Your task to perform on an android device: turn pop-ups off in chrome Image 0: 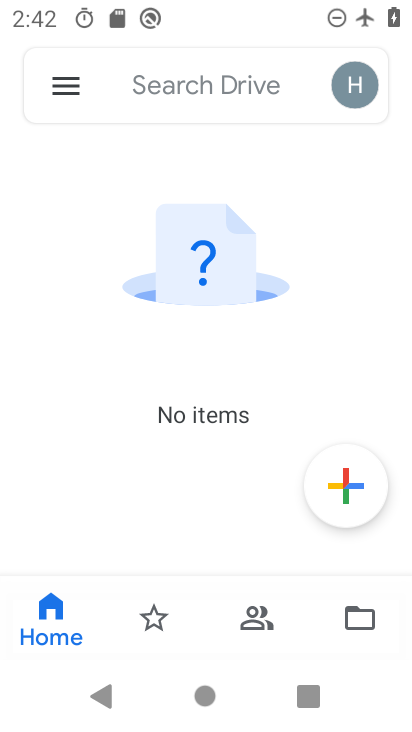
Step 0: press home button
Your task to perform on an android device: turn pop-ups off in chrome Image 1: 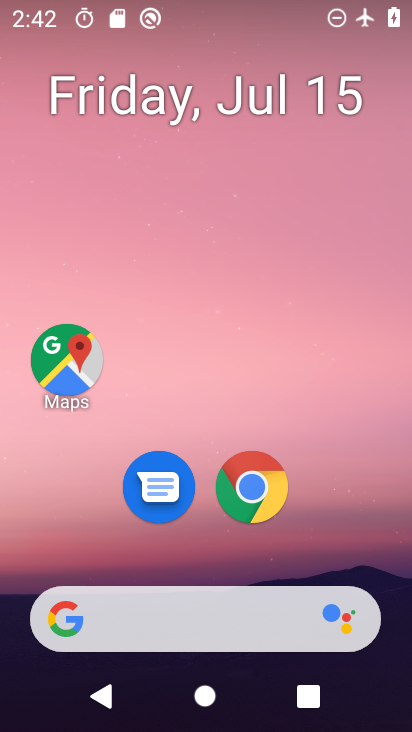
Step 1: drag from (172, 646) to (257, 199)
Your task to perform on an android device: turn pop-ups off in chrome Image 2: 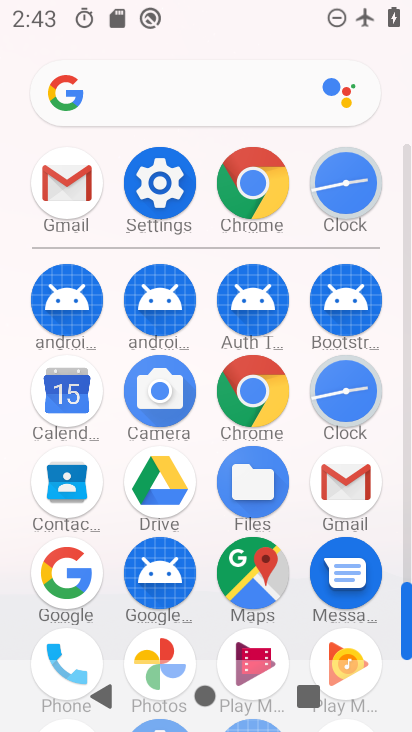
Step 2: click (273, 230)
Your task to perform on an android device: turn pop-ups off in chrome Image 3: 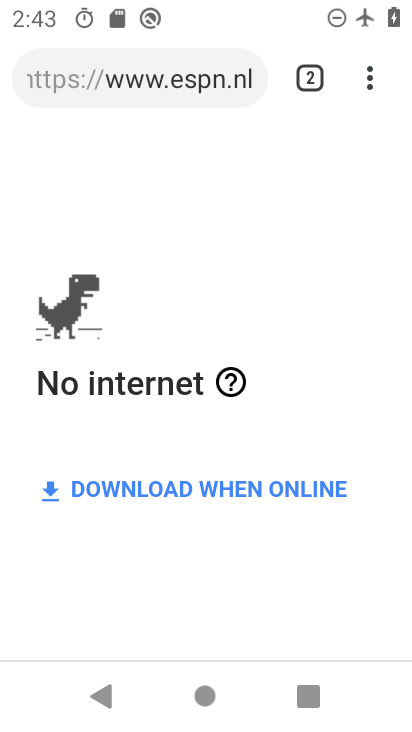
Step 3: click (366, 93)
Your task to perform on an android device: turn pop-ups off in chrome Image 4: 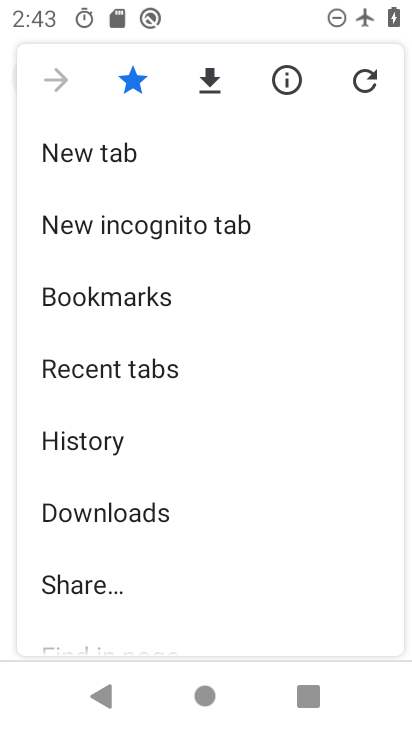
Step 4: drag from (224, 535) to (240, 213)
Your task to perform on an android device: turn pop-ups off in chrome Image 5: 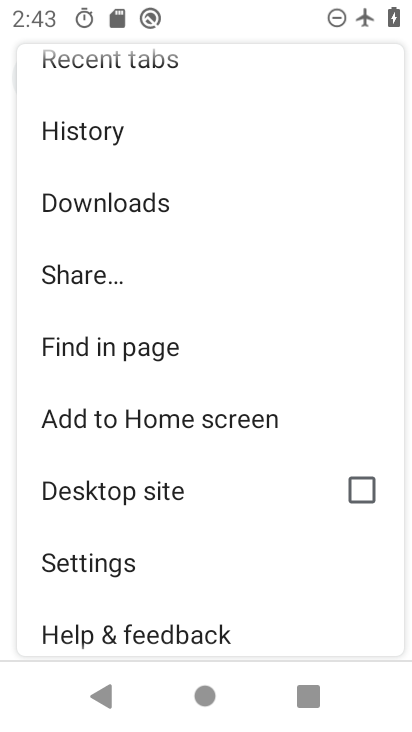
Step 5: click (90, 566)
Your task to perform on an android device: turn pop-ups off in chrome Image 6: 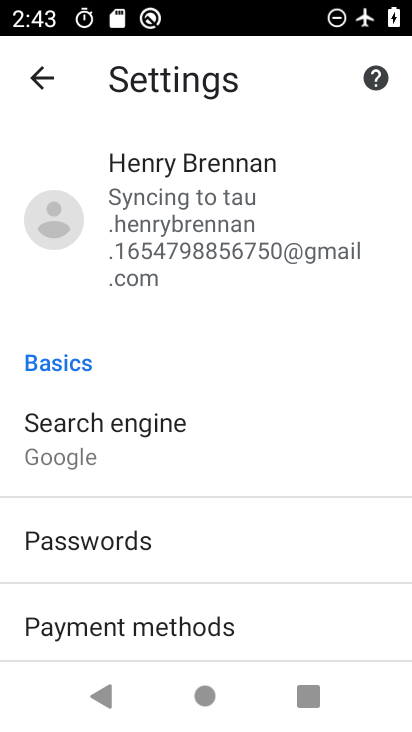
Step 6: drag from (114, 584) to (158, 246)
Your task to perform on an android device: turn pop-ups off in chrome Image 7: 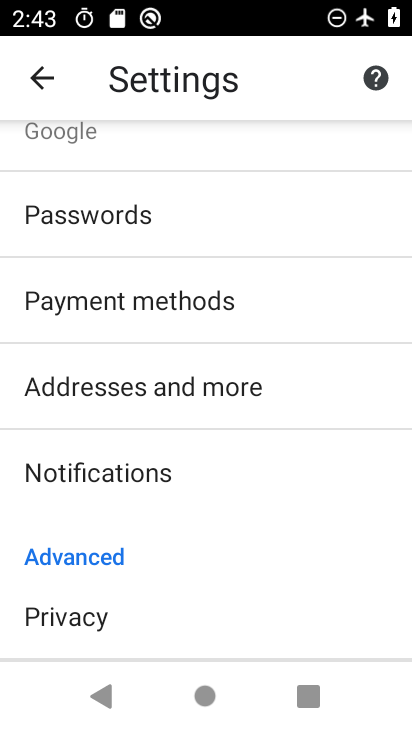
Step 7: drag from (202, 514) to (229, 267)
Your task to perform on an android device: turn pop-ups off in chrome Image 8: 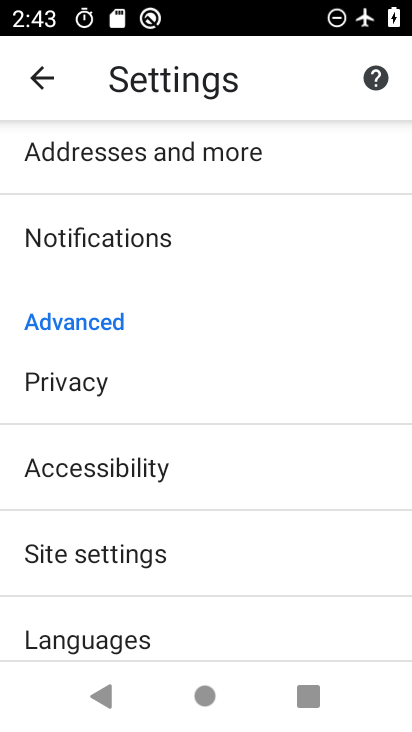
Step 8: click (186, 554)
Your task to perform on an android device: turn pop-ups off in chrome Image 9: 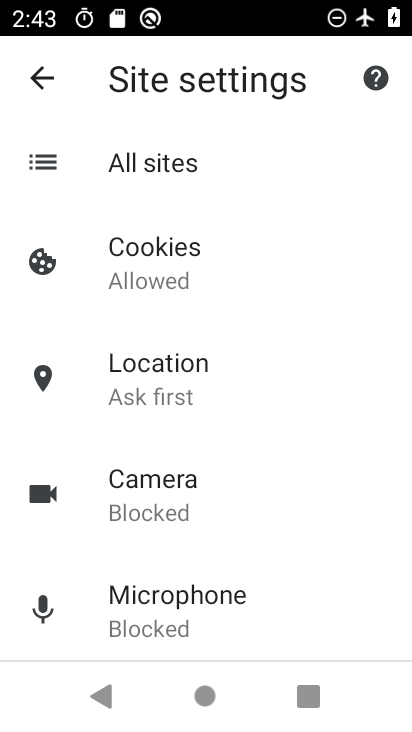
Step 9: drag from (189, 552) to (209, 366)
Your task to perform on an android device: turn pop-ups off in chrome Image 10: 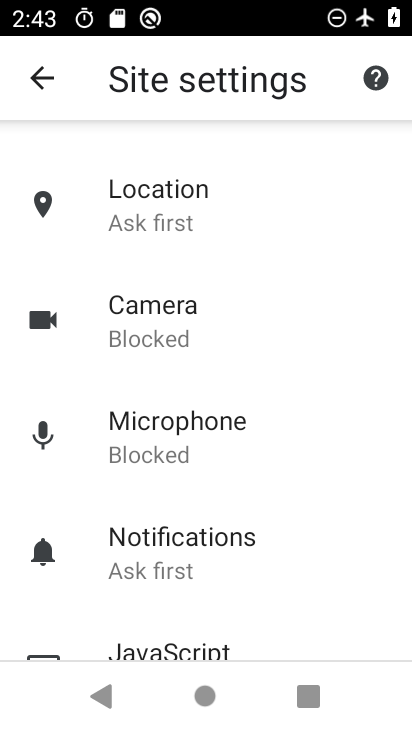
Step 10: drag from (228, 542) to (259, 217)
Your task to perform on an android device: turn pop-ups off in chrome Image 11: 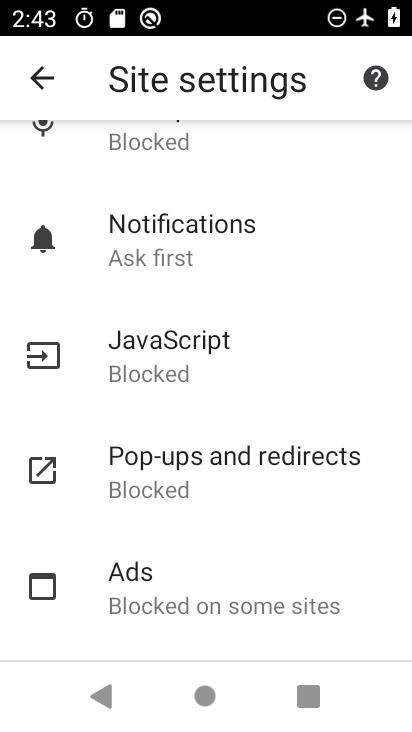
Step 11: click (233, 483)
Your task to perform on an android device: turn pop-ups off in chrome Image 12: 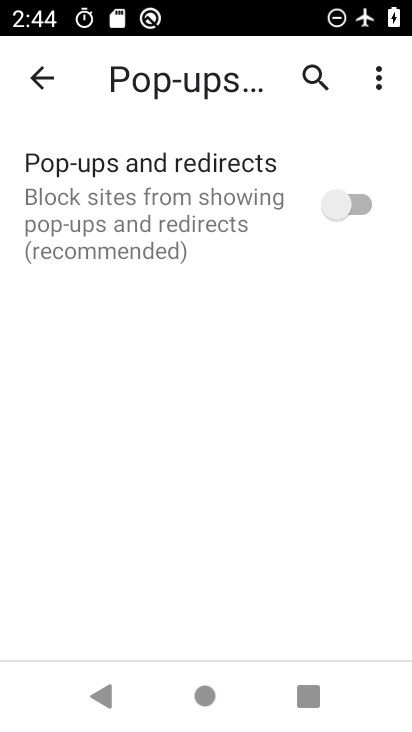
Step 12: task complete